Your task to perform on an android device: make emails show in primary in the gmail app Image 0: 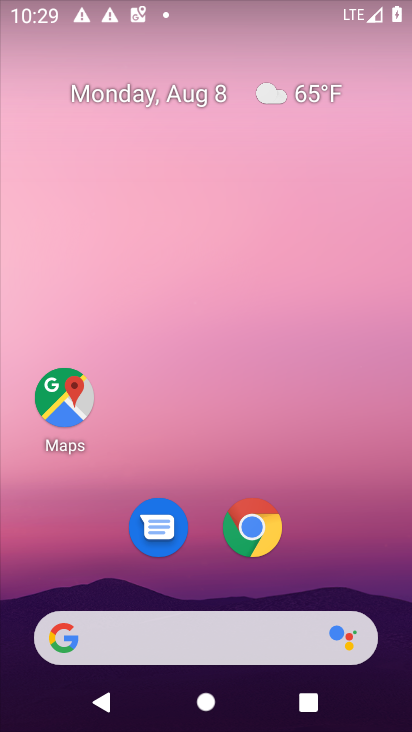
Step 0: drag from (389, 673) to (346, 170)
Your task to perform on an android device: make emails show in primary in the gmail app Image 1: 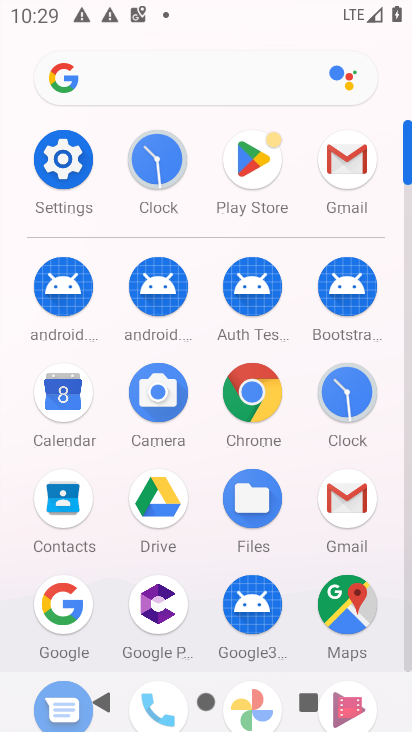
Step 1: click (344, 167)
Your task to perform on an android device: make emails show in primary in the gmail app Image 2: 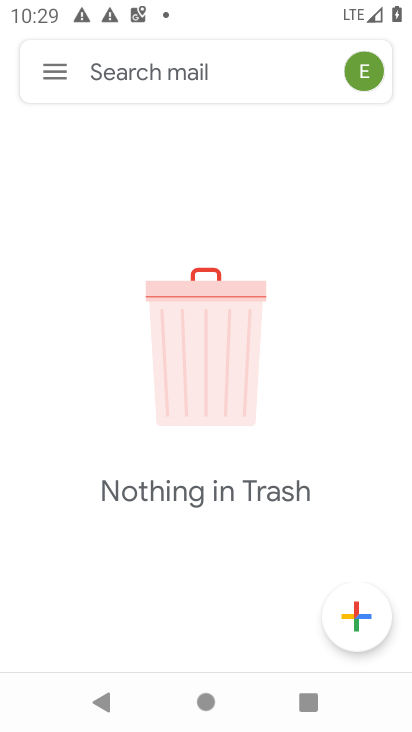
Step 2: click (41, 72)
Your task to perform on an android device: make emails show in primary in the gmail app Image 3: 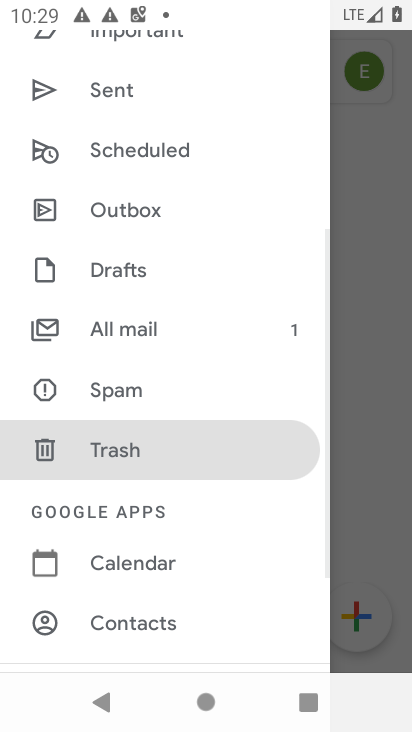
Step 3: drag from (246, 603) to (259, 204)
Your task to perform on an android device: make emails show in primary in the gmail app Image 4: 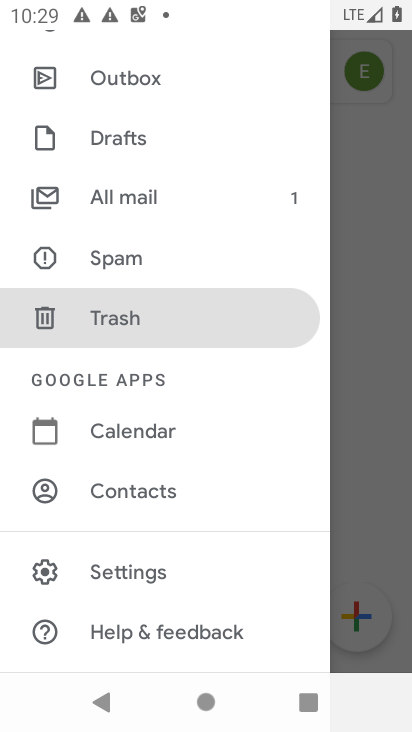
Step 4: click (111, 567)
Your task to perform on an android device: make emails show in primary in the gmail app Image 5: 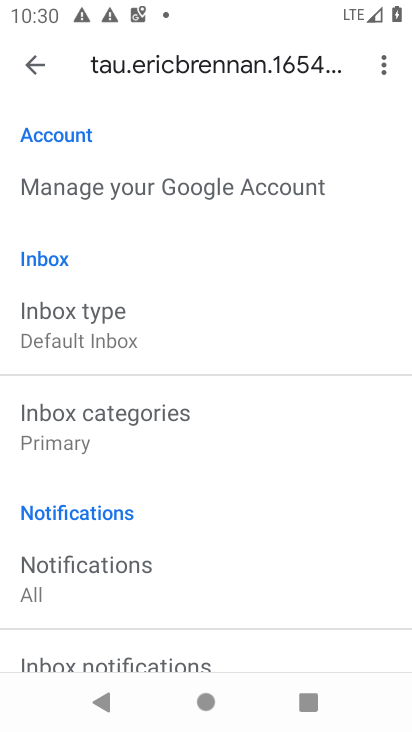
Step 5: drag from (225, 259) to (254, 559)
Your task to perform on an android device: make emails show in primary in the gmail app Image 6: 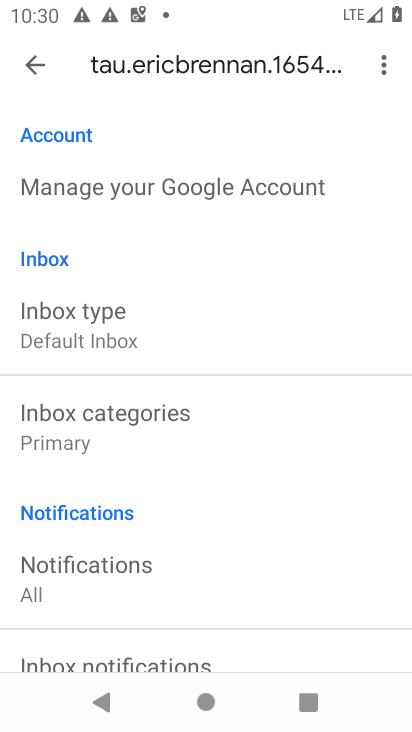
Step 6: click (73, 321)
Your task to perform on an android device: make emails show in primary in the gmail app Image 7: 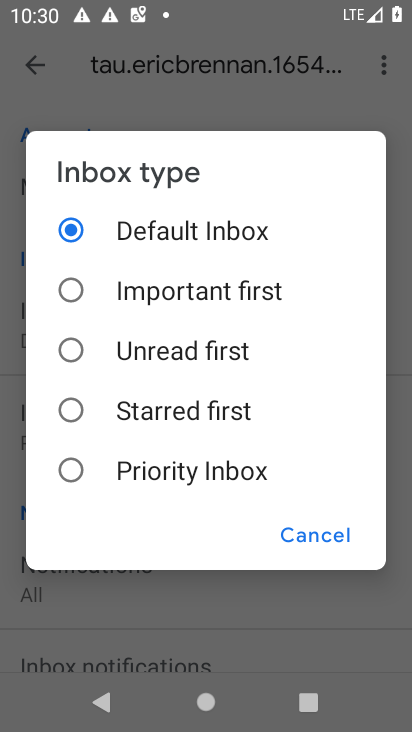
Step 7: click (318, 535)
Your task to perform on an android device: make emails show in primary in the gmail app Image 8: 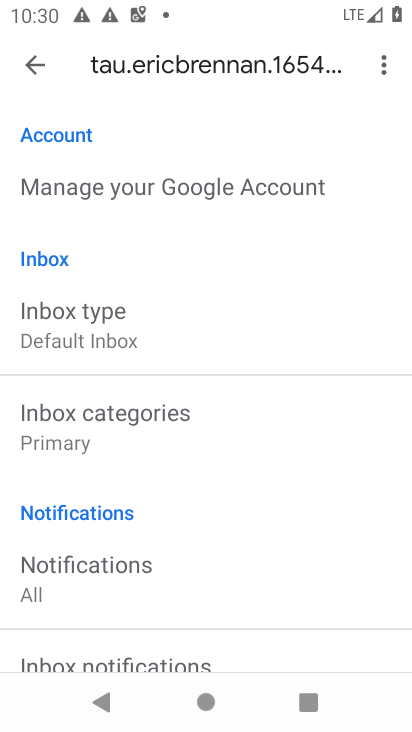
Step 8: click (48, 417)
Your task to perform on an android device: make emails show in primary in the gmail app Image 9: 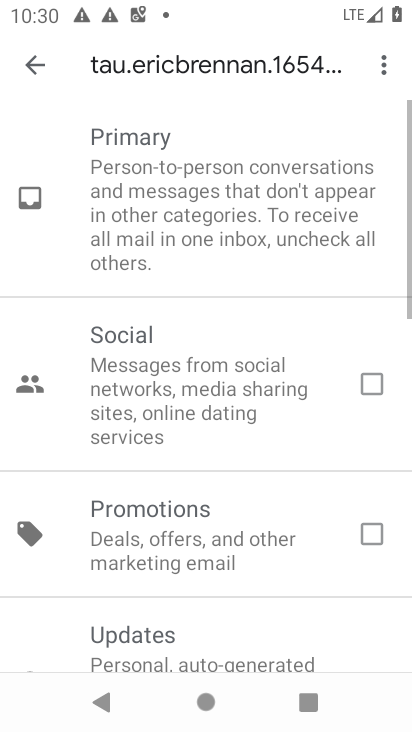
Step 9: task complete